Your task to perform on an android device: Open Maps and search for coffee Image 0: 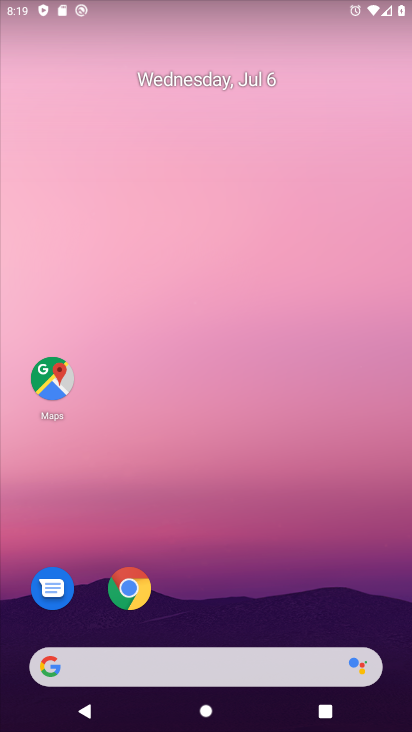
Step 0: drag from (322, 617) to (294, 261)
Your task to perform on an android device: Open Maps and search for coffee Image 1: 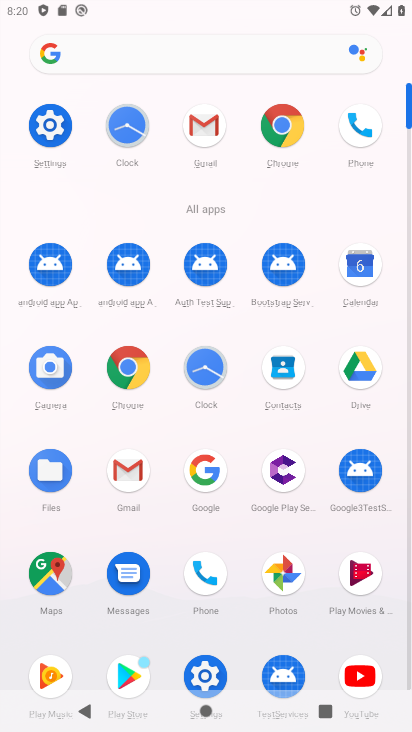
Step 1: click (33, 578)
Your task to perform on an android device: Open Maps and search for coffee Image 2: 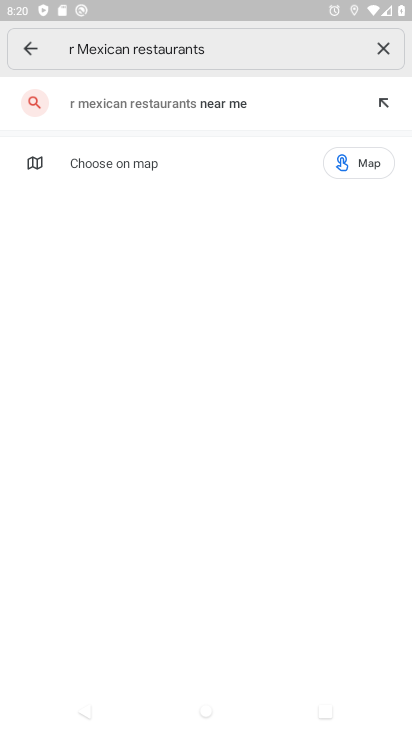
Step 2: click (380, 42)
Your task to perform on an android device: Open Maps and search for coffee Image 3: 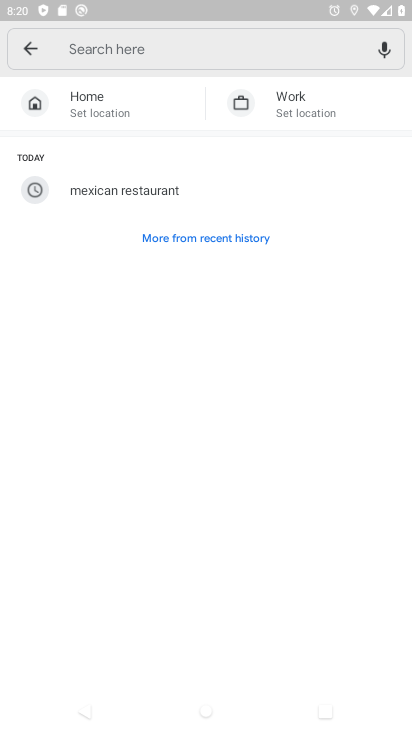
Step 3: click (27, 49)
Your task to perform on an android device: Open Maps and search for coffee Image 4: 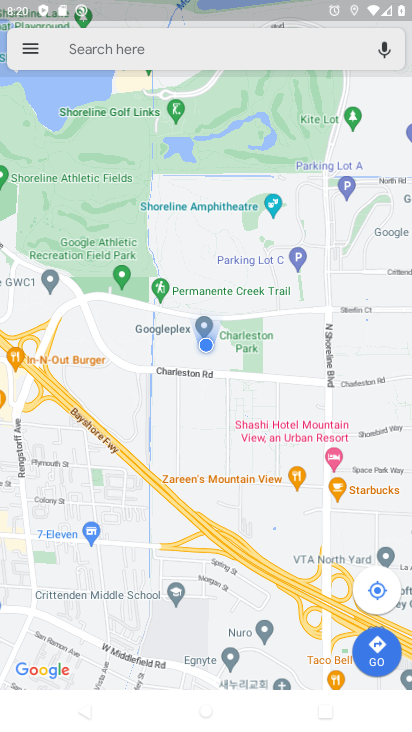
Step 4: click (208, 42)
Your task to perform on an android device: Open Maps and search for coffee Image 5: 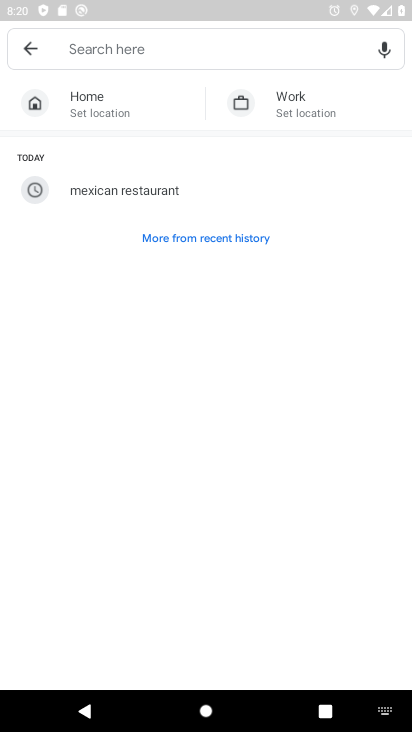
Step 5: click (156, 49)
Your task to perform on an android device: Open Maps and search for coffee Image 6: 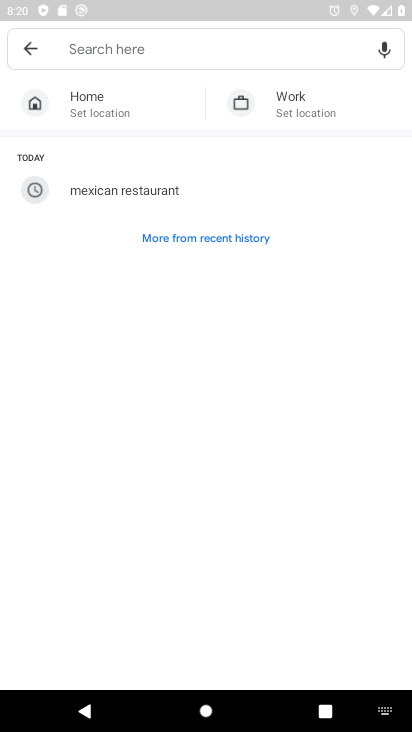
Step 6: type "coffee "
Your task to perform on an android device: Open Maps and search for coffee Image 7: 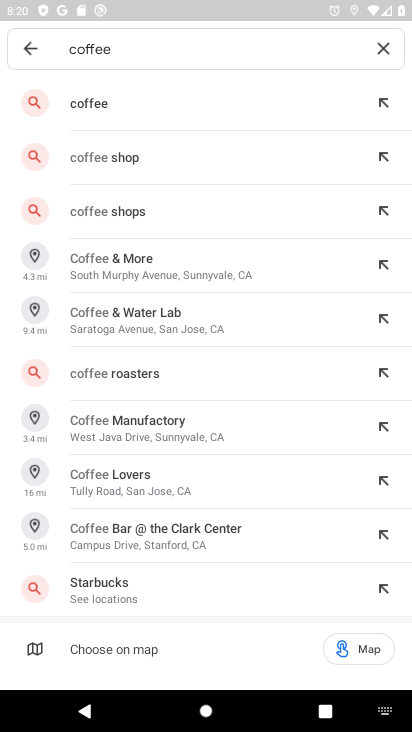
Step 7: click (125, 101)
Your task to perform on an android device: Open Maps and search for coffee Image 8: 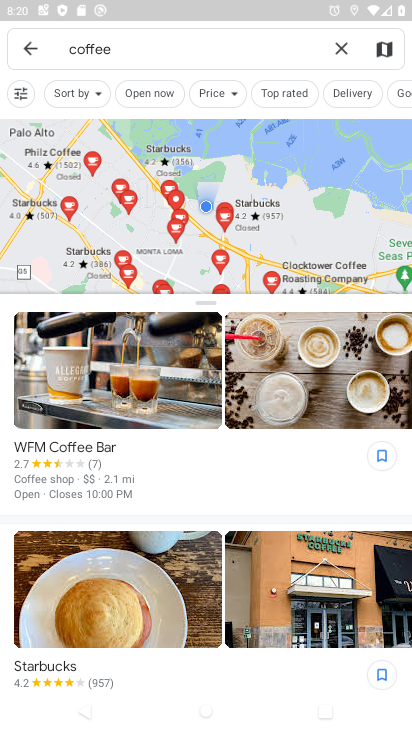
Step 8: task complete